Your task to perform on an android device: check google app version Image 0: 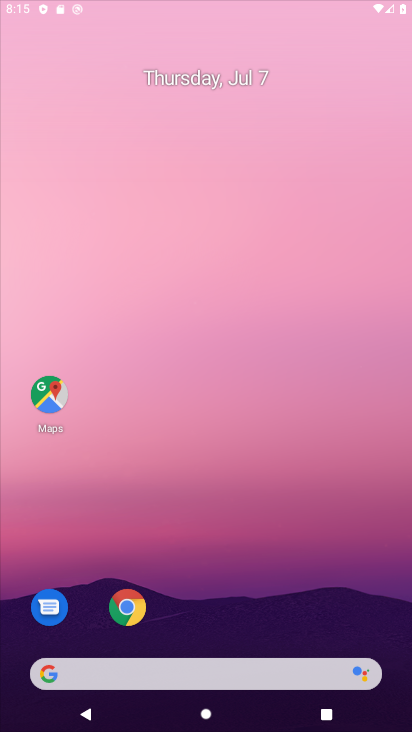
Step 0: click (208, 221)
Your task to perform on an android device: check google app version Image 1: 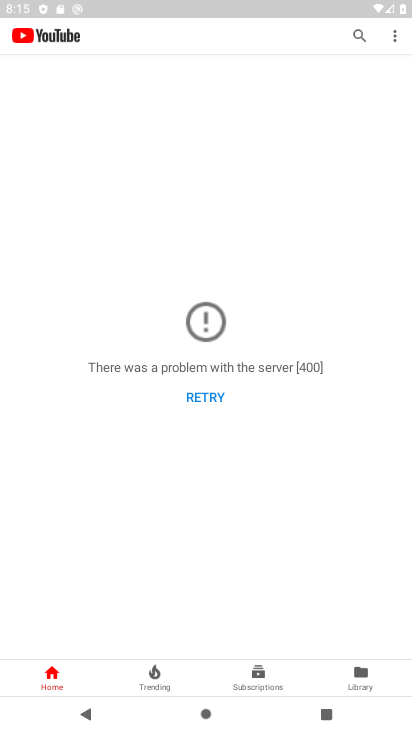
Step 1: press home button
Your task to perform on an android device: check google app version Image 2: 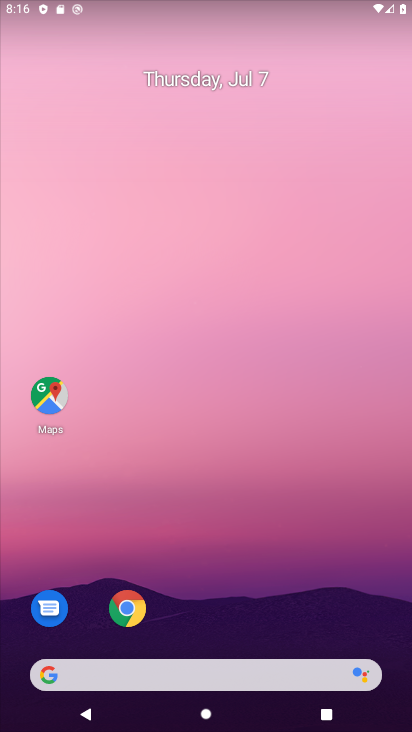
Step 2: drag from (179, 653) to (190, 320)
Your task to perform on an android device: check google app version Image 3: 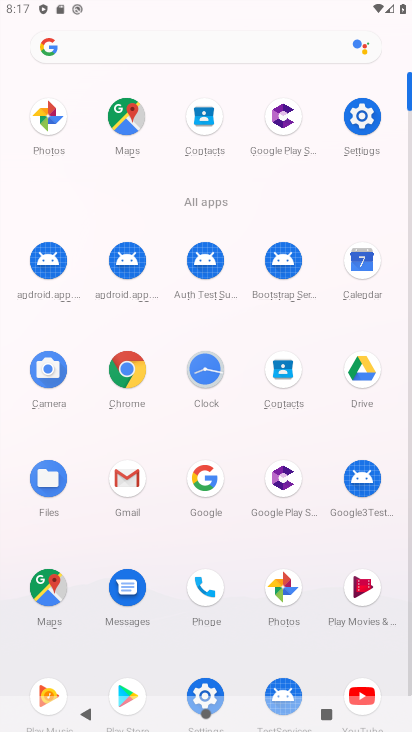
Step 3: click (207, 481)
Your task to perform on an android device: check google app version Image 4: 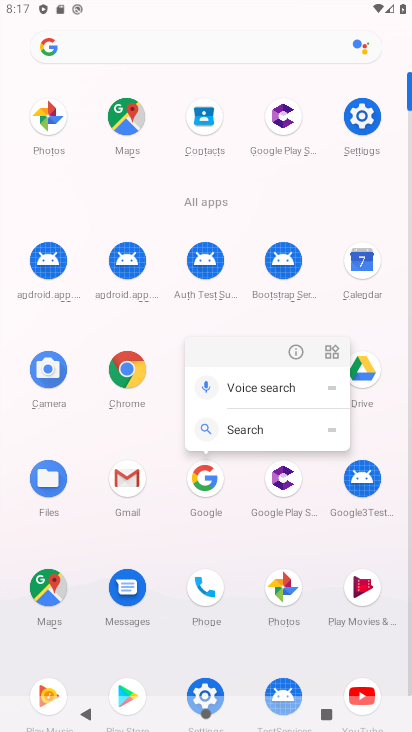
Step 4: click (297, 345)
Your task to perform on an android device: check google app version Image 5: 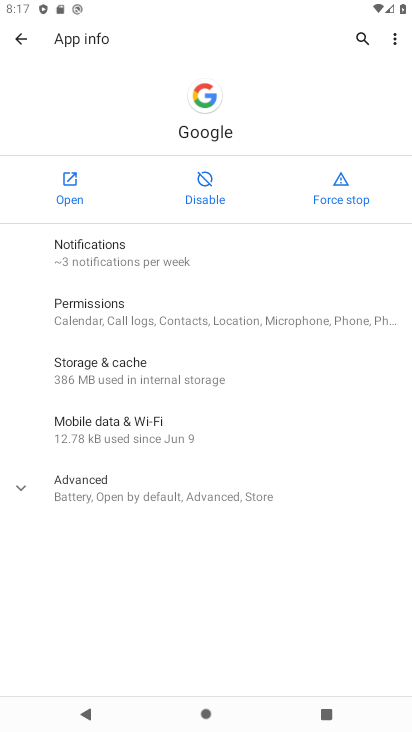
Step 5: click (118, 506)
Your task to perform on an android device: check google app version Image 6: 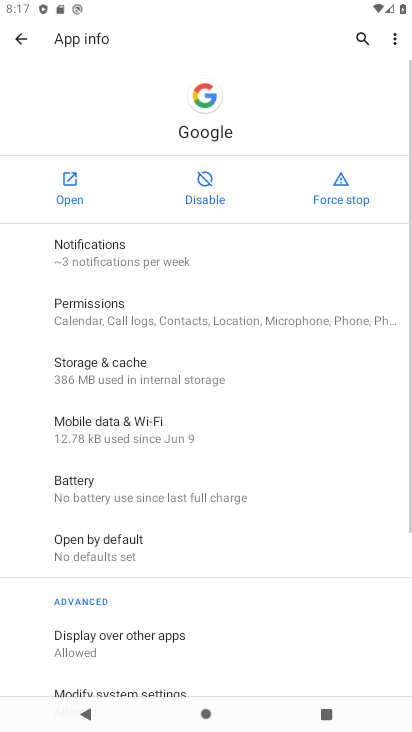
Step 6: task complete